Your task to perform on an android device: Open Google Maps and go to "Timeline" Image 0: 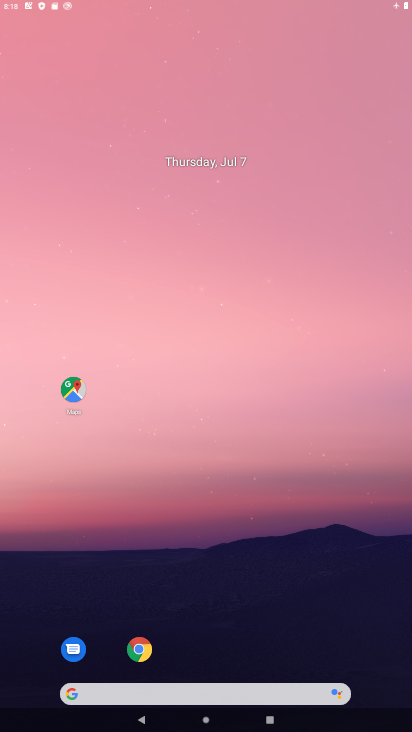
Step 0: click (264, 363)
Your task to perform on an android device: Open Google Maps and go to "Timeline" Image 1: 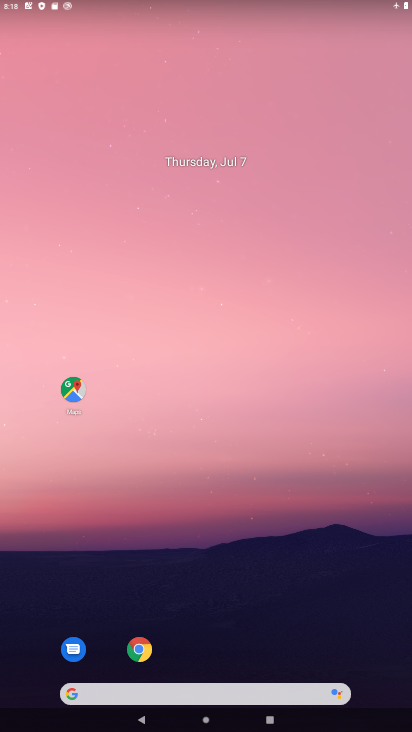
Step 1: drag from (296, 692) to (174, 172)
Your task to perform on an android device: Open Google Maps and go to "Timeline" Image 2: 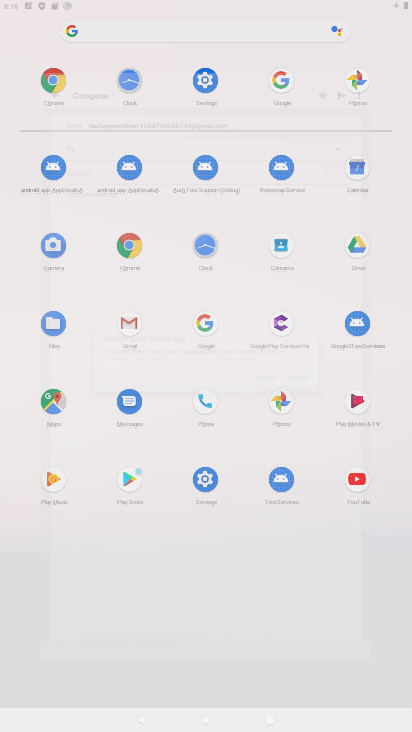
Step 2: click (52, 393)
Your task to perform on an android device: Open Google Maps and go to "Timeline" Image 3: 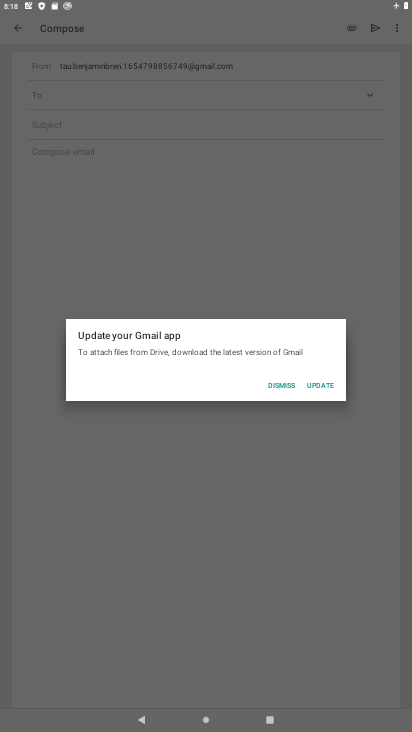
Step 3: click (49, 391)
Your task to perform on an android device: Open Google Maps and go to "Timeline" Image 4: 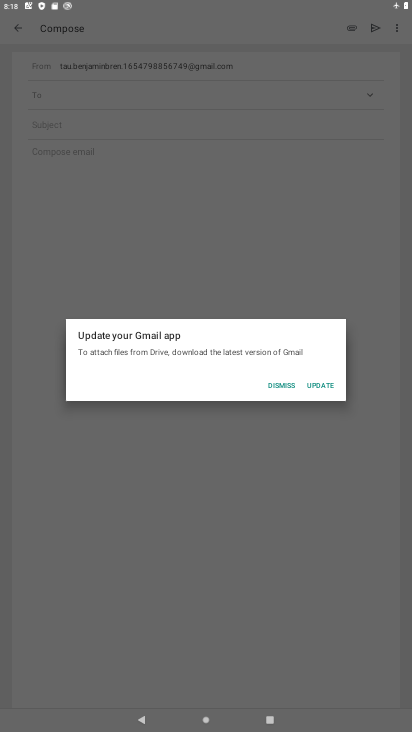
Step 4: click (276, 386)
Your task to perform on an android device: Open Google Maps and go to "Timeline" Image 5: 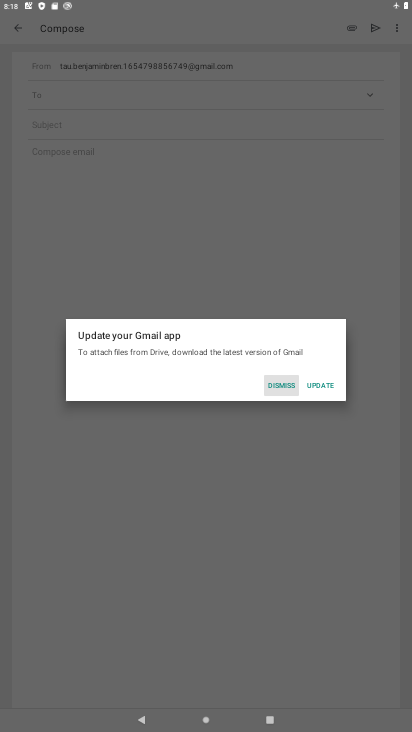
Step 5: click (272, 383)
Your task to perform on an android device: Open Google Maps and go to "Timeline" Image 6: 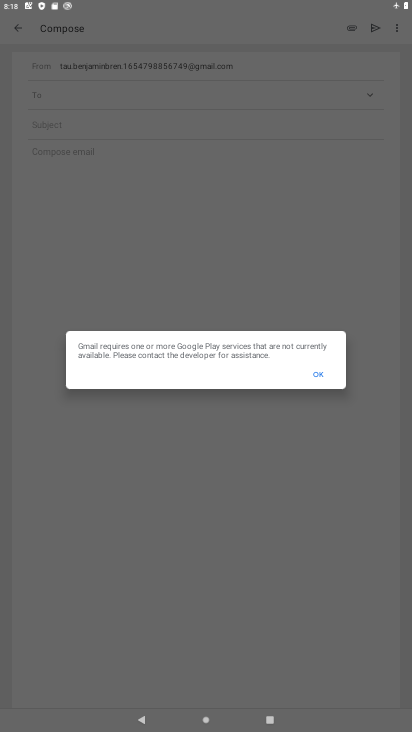
Step 6: click (323, 369)
Your task to perform on an android device: Open Google Maps and go to "Timeline" Image 7: 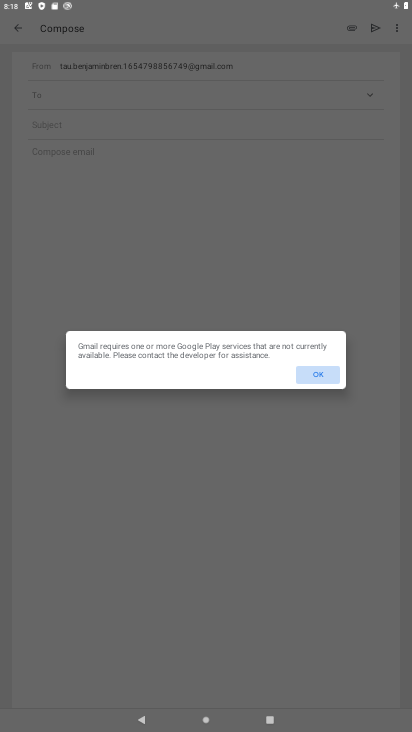
Step 7: click (323, 370)
Your task to perform on an android device: Open Google Maps and go to "Timeline" Image 8: 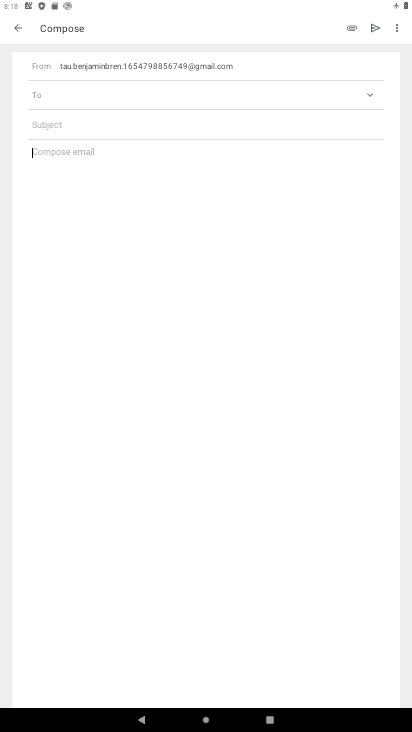
Step 8: click (17, 28)
Your task to perform on an android device: Open Google Maps and go to "Timeline" Image 9: 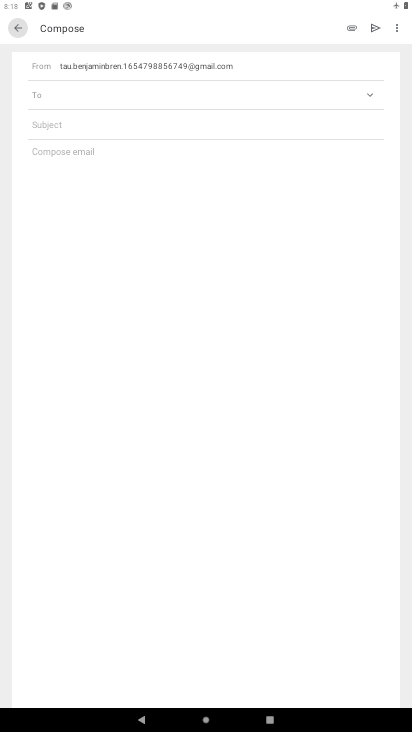
Step 9: click (17, 28)
Your task to perform on an android device: Open Google Maps and go to "Timeline" Image 10: 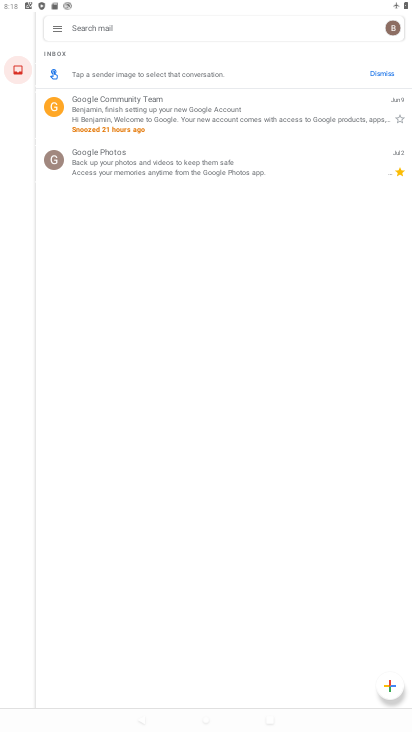
Step 10: press back button
Your task to perform on an android device: Open Google Maps and go to "Timeline" Image 11: 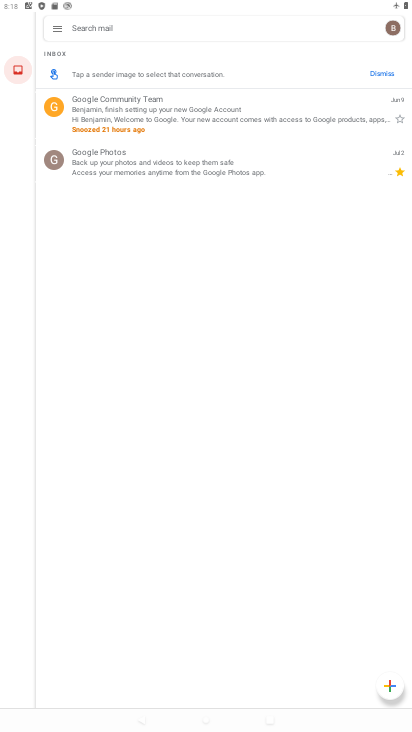
Step 11: press back button
Your task to perform on an android device: Open Google Maps and go to "Timeline" Image 12: 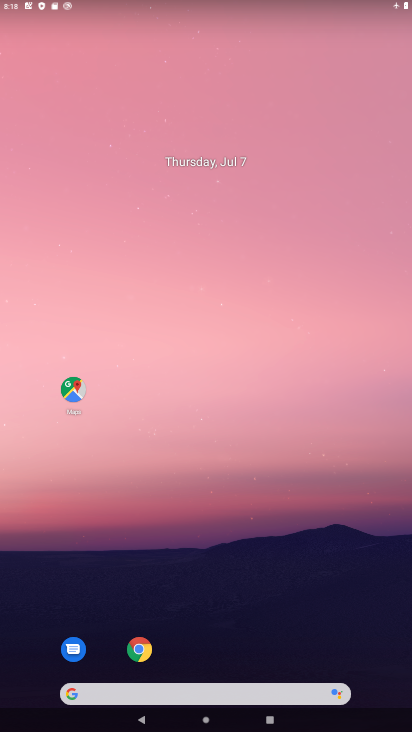
Step 12: drag from (233, 672) to (114, 159)
Your task to perform on an android device: Open Google Maps and go to "Timeline" Image 13: 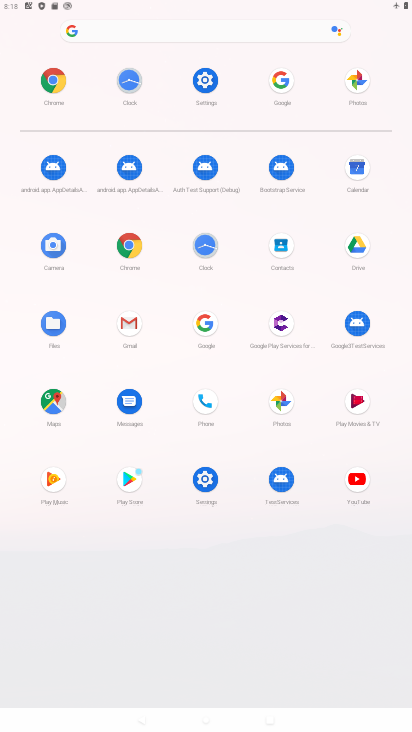
Step 13: click (50, 406)
Your task to perform on an android device: Open Google Maps and go to "Timeline" Image 14: 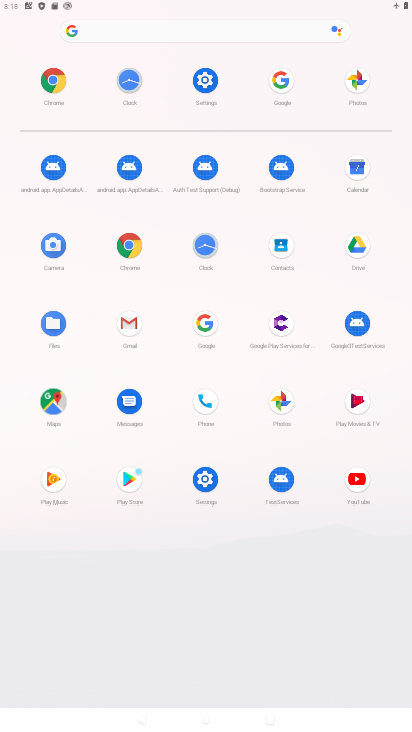
Step 14: click (54, 417)
Your task to perform on an android device: Open Google Maps and go to "Timeline" Image 15: 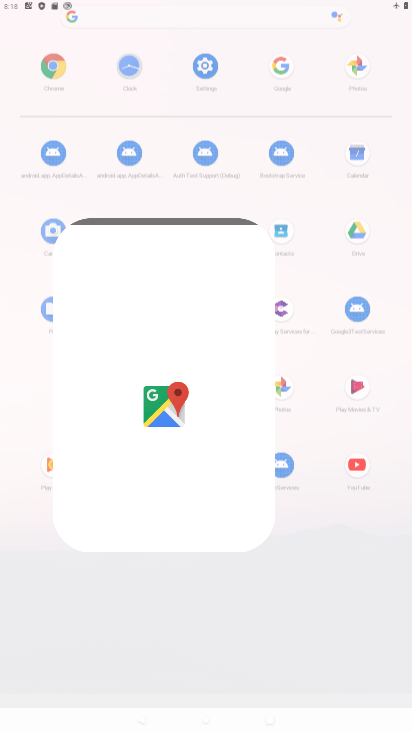
Step 15: click (55, 415)
Your task to perform on an android device: Open Google Maps and go to "Timeline" Image 16: 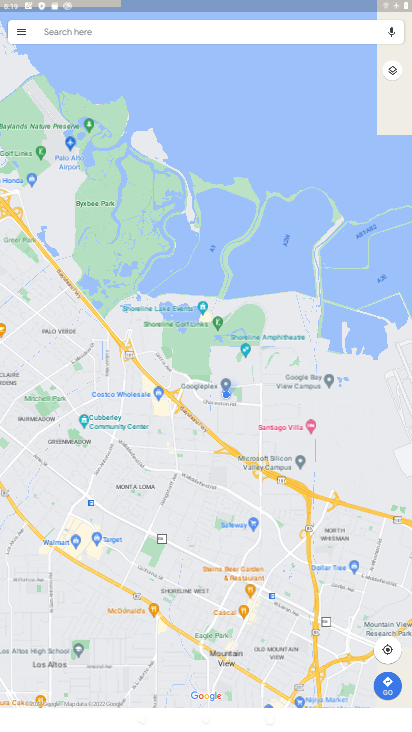
Step 16: click (14, 33)
Your task to perform on an android device: Open Google Maps and go to "Timeline" Image 17: 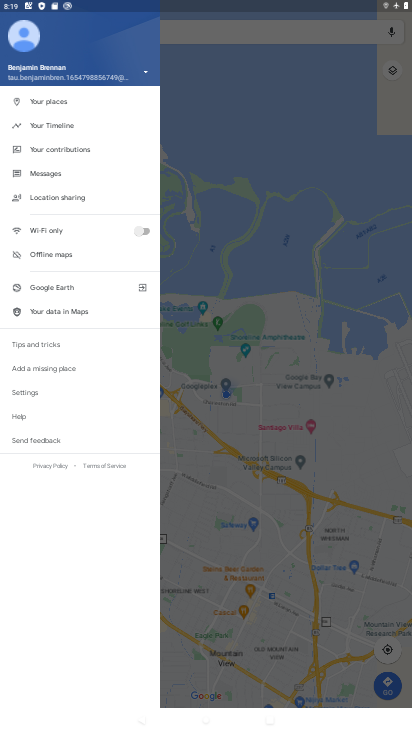
Step 17: click (73, 122)
Your task to perform on an android device: Open Google Maps and go to "Timeline" Image 18: 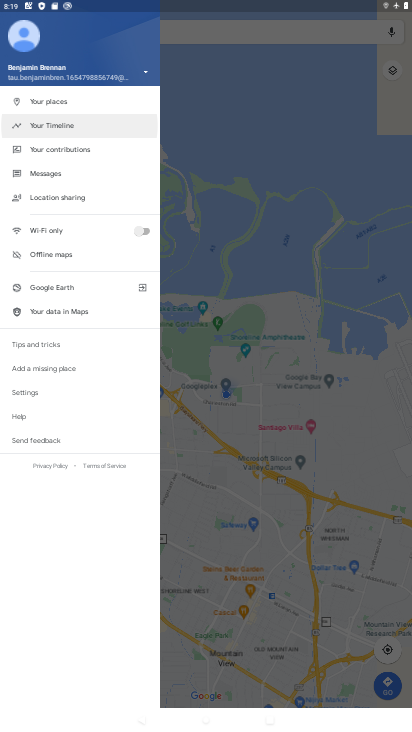
Step 18: click (74, 124)
Your task to perform on an android device: Open Google Maps and go to "Timeline" Image 19: 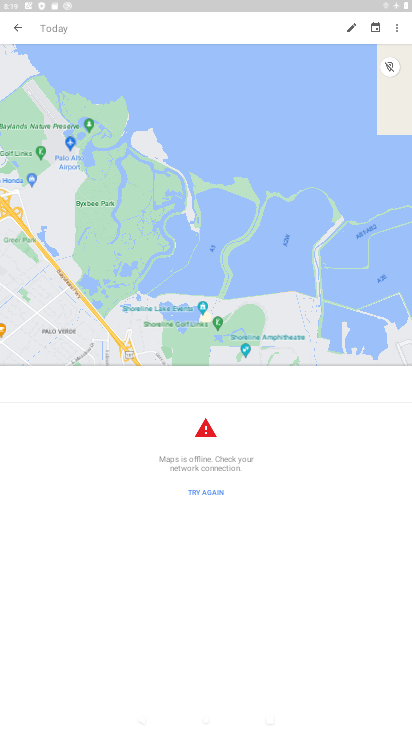
Step 19: click (19, 26)
Your task to perform on an android device: Open Google Maps and go to "Timeline" Image 20: 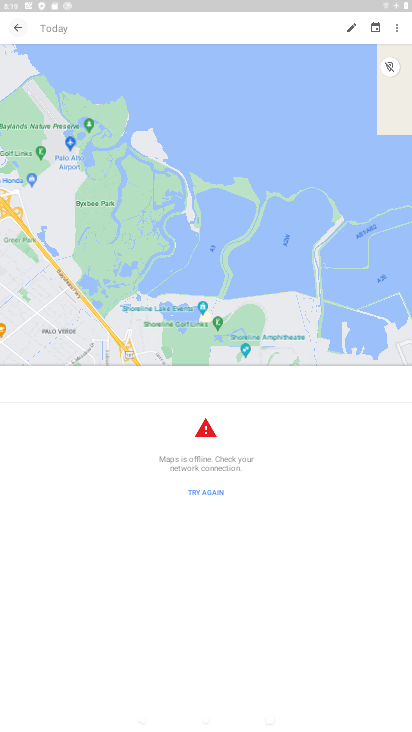
Step 20: click (19, 26)
Your task to perform on an android device: Open Google Maps and go to "Timeline" Image 21: 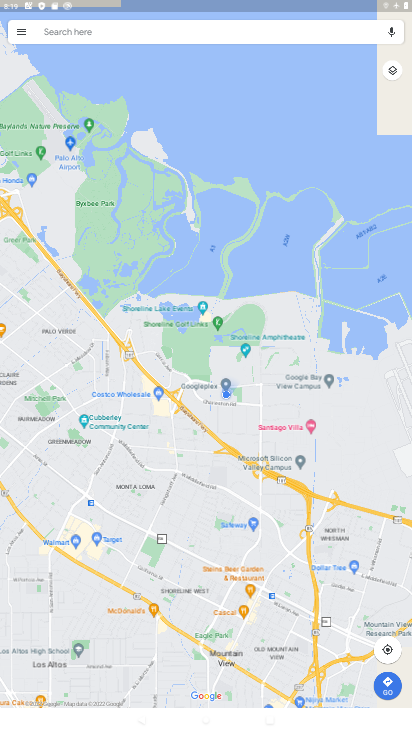
Step 21: click (19, 25)
Your task to perform on an android device: Open Google Maps and go to "Timeline" Image 22: 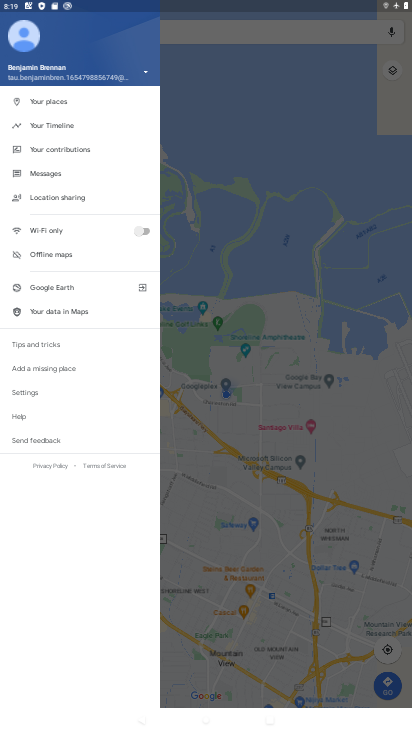
Step 22: click (43, 133)
Your task to perform on an android device: Open Google Maps and go to "Timeline" Image 23: 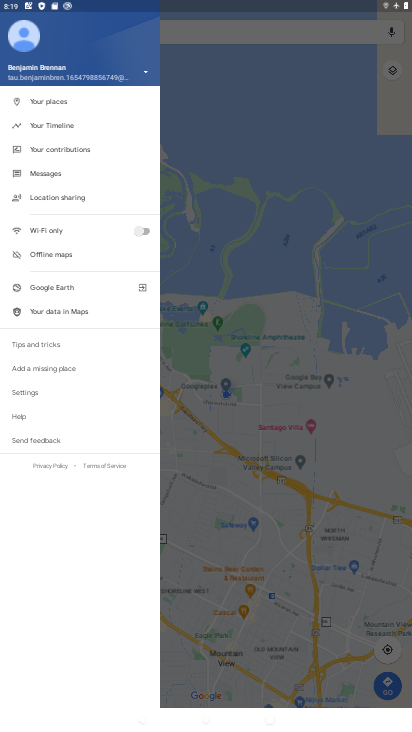
Step 23: click (49, 116)
Your task to perform on an android device: Open Google Maps and go to "Timeline" Image 24: 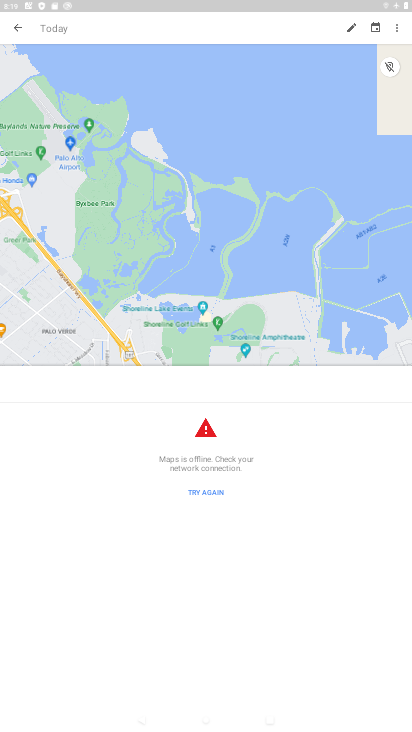
Step 24: click (395, 32)
Your task to perform on an android device: Open Google Maps and go to "Timeline" Image 25: 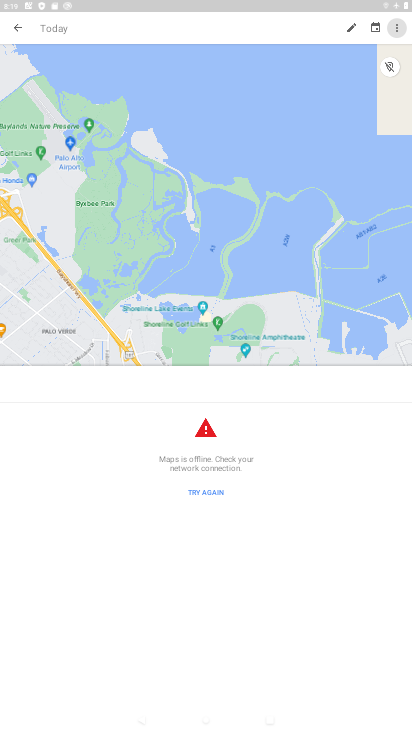
Step 25: click (395, 32)
Your task to perform on an android device: Open Google Maps and go to "Timeline" Image 26: 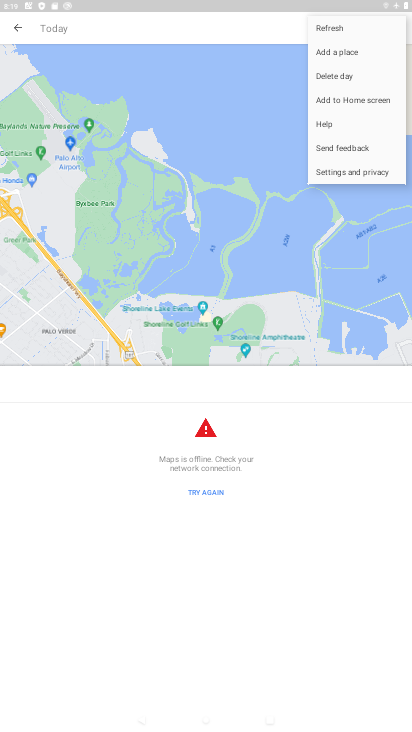
Step 26: click (177, 175)
Your task to perform on an android device: Open Google Maps and go to "Timeline" Image 27: 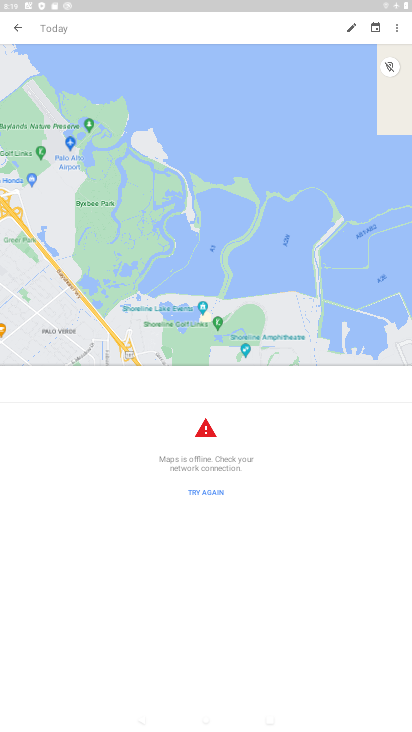
Step 27: task complete